Your task to perform on an android device: Open Google Image 0: 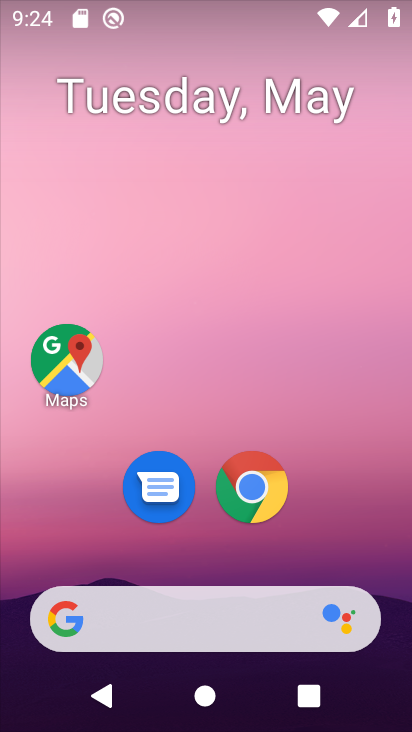
Step 0: press home button
Your task to perform on an android device: Open Google Image 1: 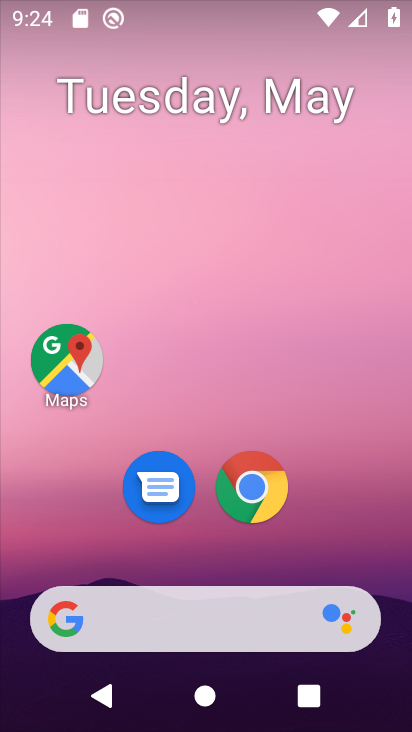
Step 1: drag from (177, 612) to (333, 87)
Your task to perform on an android device: Open Google Image 2: 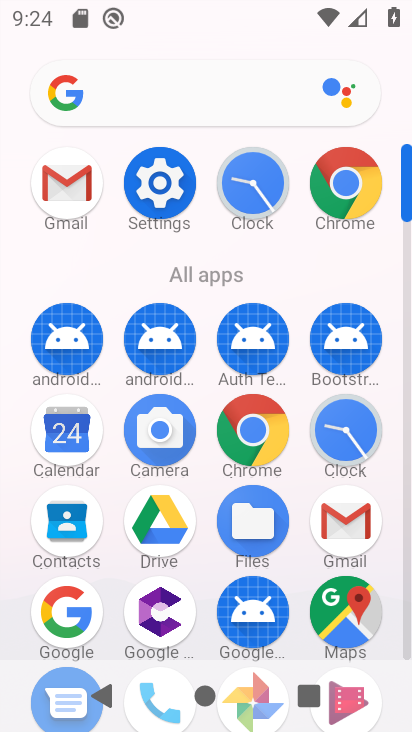
Step 2: click (87, 613)
Your task to perform on an android device: Open Google Image 3: 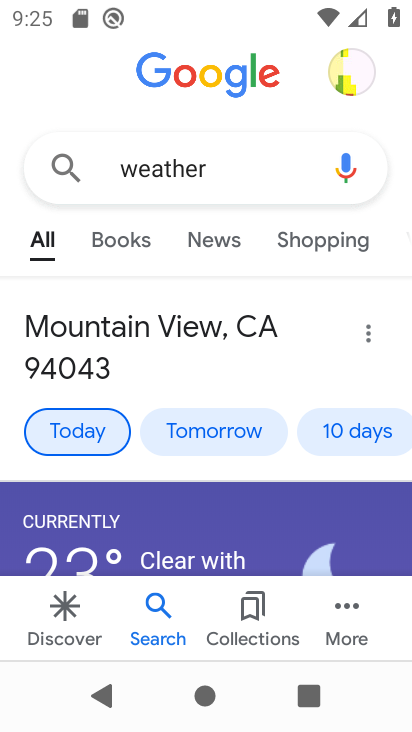
Step 3: drag from (190, 553) to (384, 120)
Your task to perform on an android device: Open Google Image 4: 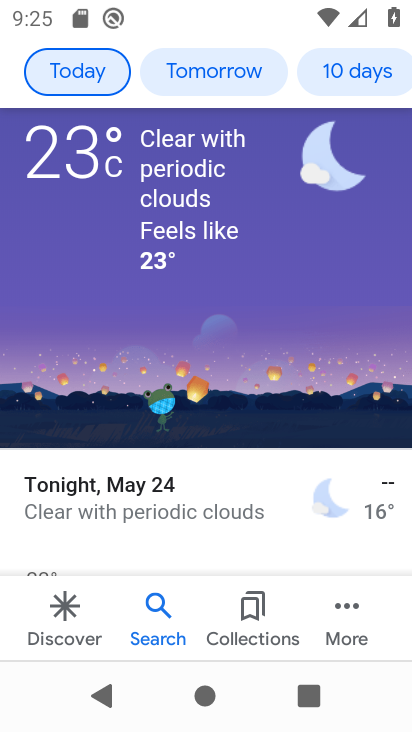
Step 4: drag from (260, 298) to (165, 643)
Your task to perform on an android device: Open Google Image 5: 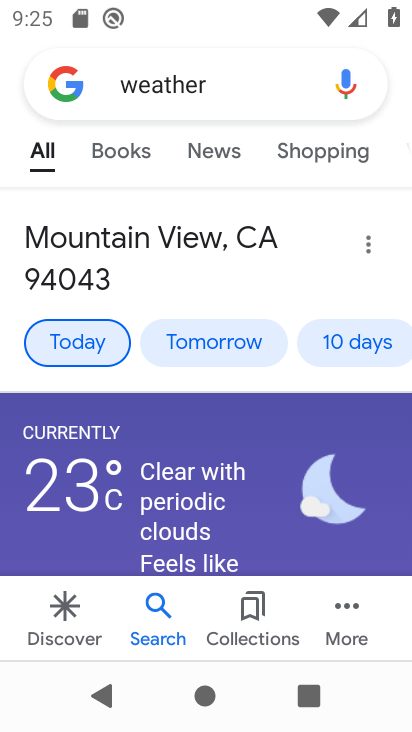
Step 5: click (63, 627)
Your task to perform on an android device: Open Google Image 6: 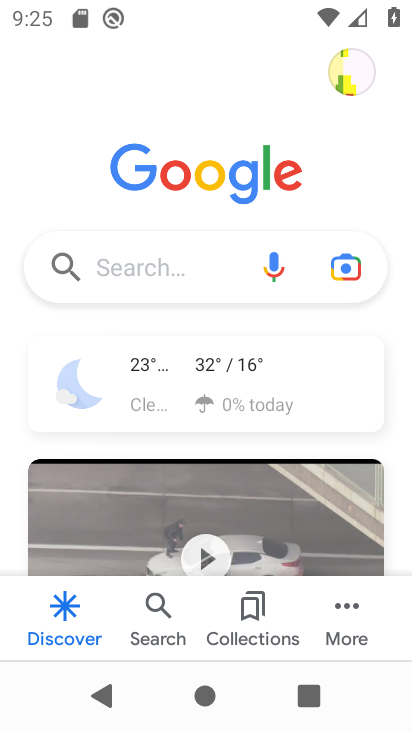
Step 6: task complete